Your task to perform on an android device: Search for the new nintendo switch on Walmart. Image 0: 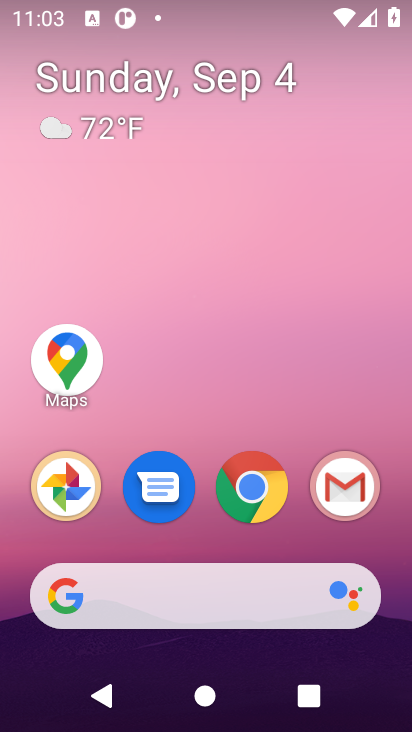
Step 0: click (200, 617)
Your task to perform on an android device: Search for the new nintendo switch on Walmart. Image 1: 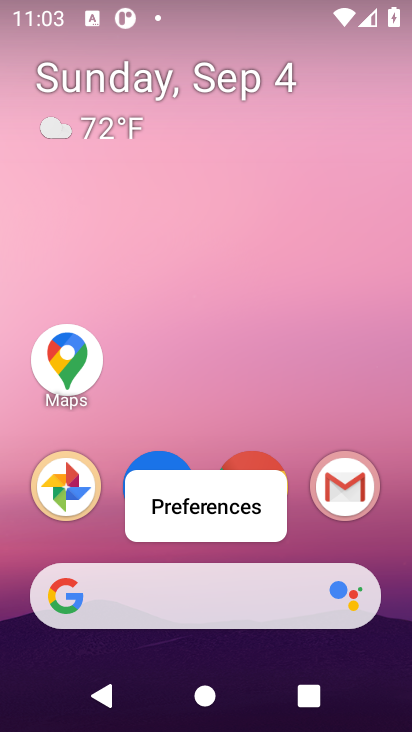
Step 1: click (190, 579)
Your task to perform on an android device: Search for the new nintendo switch on Walmart. Image 2: 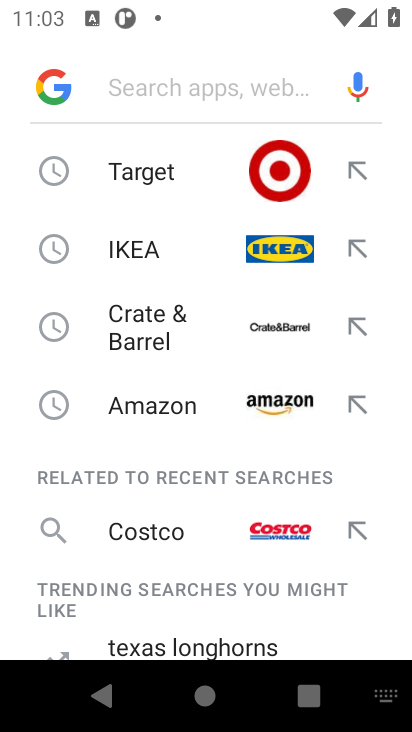
Step 2: type "walmart"
Your task to perform on an android device: Search for the new nintendo switch on Walmart. Image 3: 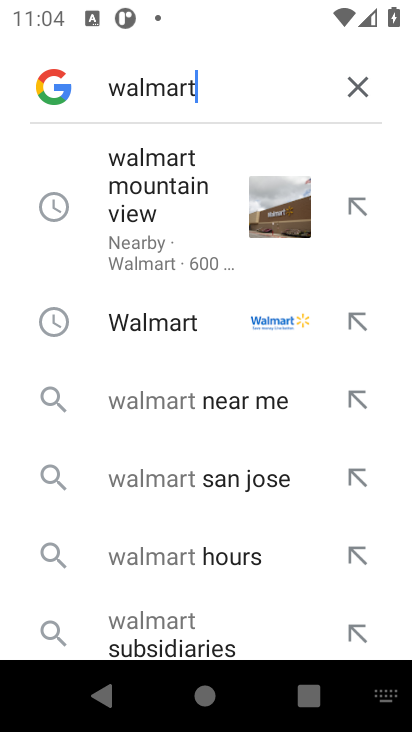
Step 3: click (168, 321)
Your task to perform on an android device: Search for the new nintendo switch on Walmart. Image 4: 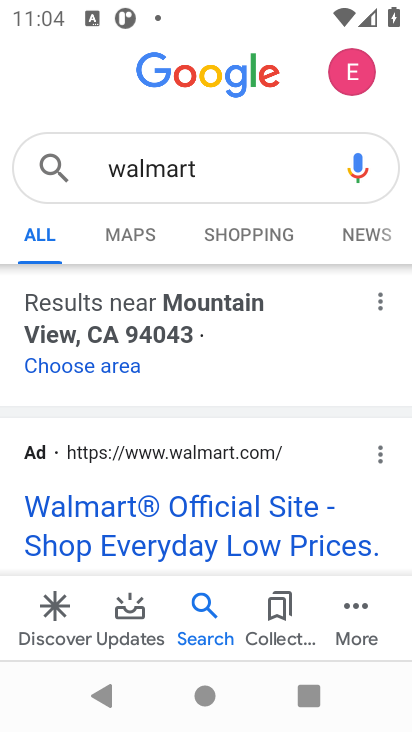
Step 4: drag from (85, 454) to (144, 146)
Your task to perform on an android device: Search for the new nintendo switch on Walmart. Image 5: 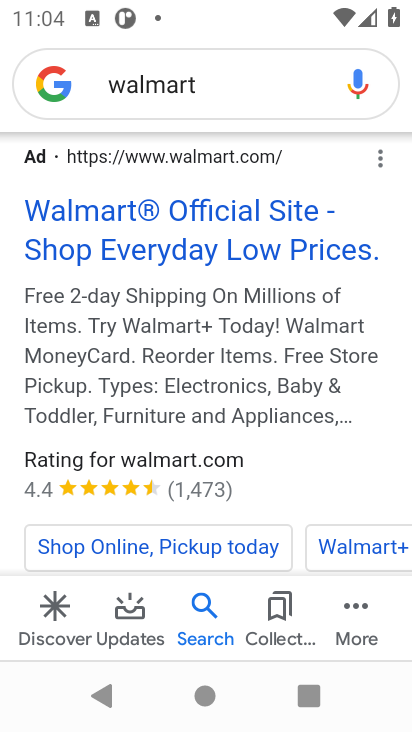
Step 5: drag from (246, 463) to (252, 404)
Your task to perform on an android device: Search for the new nintendo switch on Walmart. Image 6: 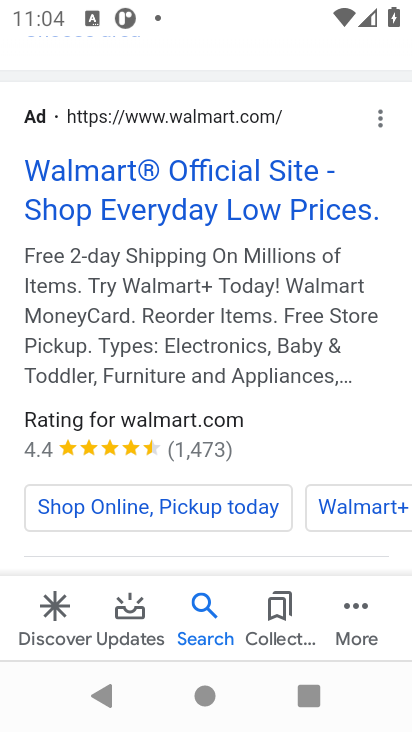
Step 6: click (210, 215)
Your task to perform on an android device: Search for the new nintendo switch on Walmart. Image 7: 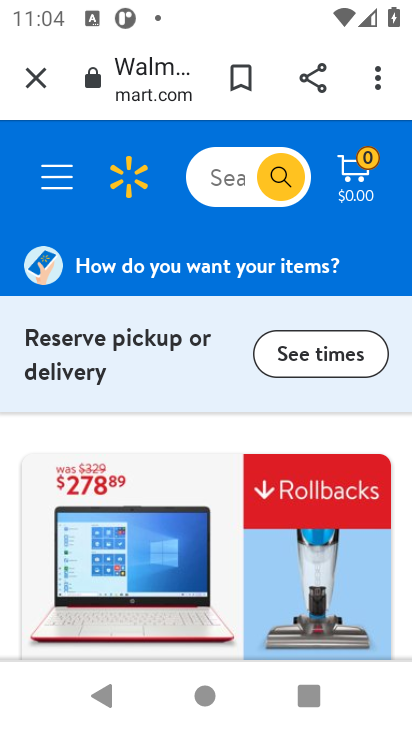
Step 7: click (269, 178)
Your task to perform on an android device: Search for the new nintendo switch on Walmart. Image 8: 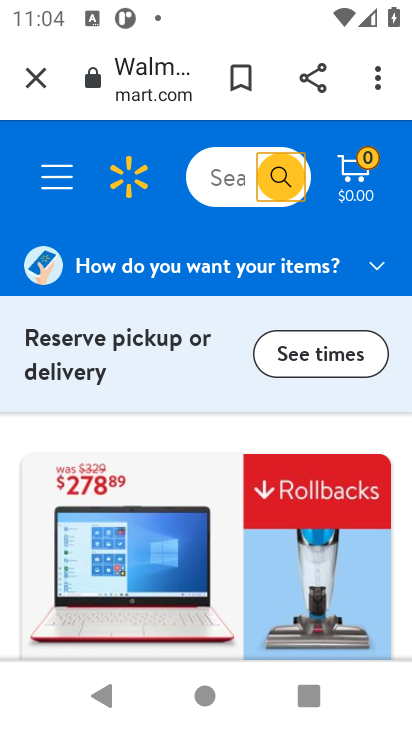
Step 8: click (269, 178)
Your task to perform on an android device: Search for the new nintendo switch on Walmart. Image 9: 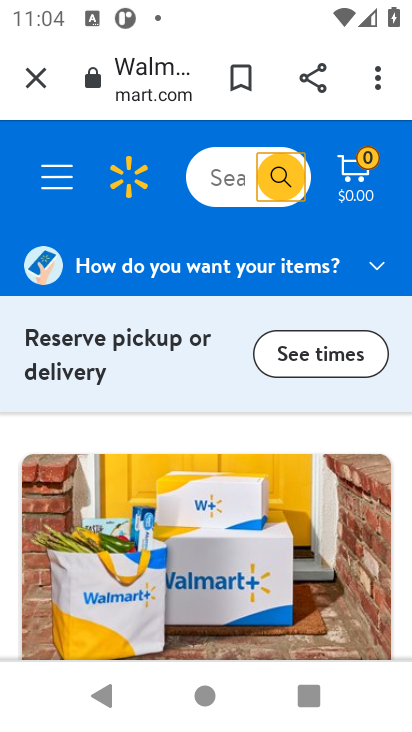
Step 9: click (218, 185)
Your task to perform on an android device: Search for the new nintendo switch on Walmart. Image 10: 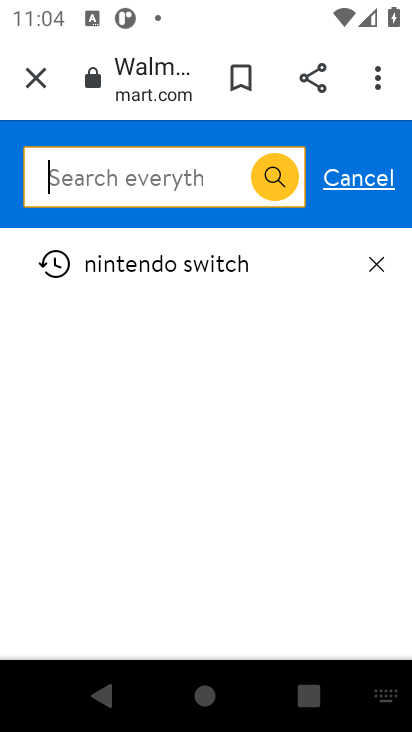
Step 10: click (222, 180)
Your task to perform on an android device: Search for the new nintendo switch on Walmart. Image 11: 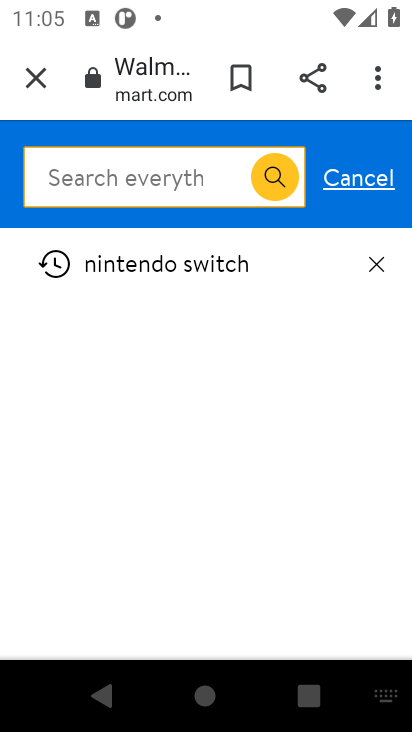
Step 11: type "nintendo switch"
Your task to perform on an android device: Search for the new nintendo switch on Walmart. Image 12: 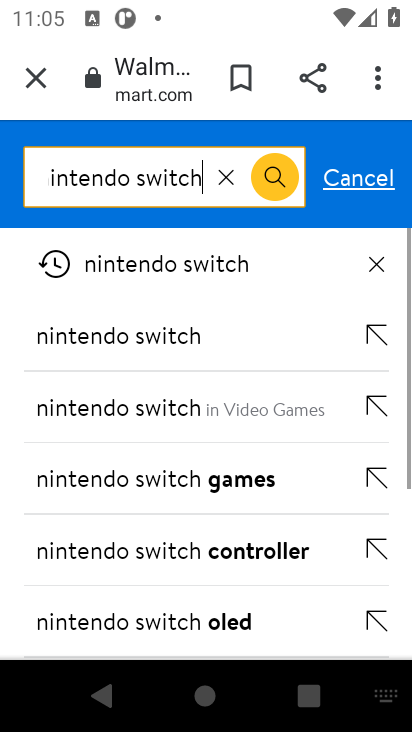
Step 12: click (286, 172)
Your task to perform on an android device: Search for the new nintendo switch on Walmart. Image 13: 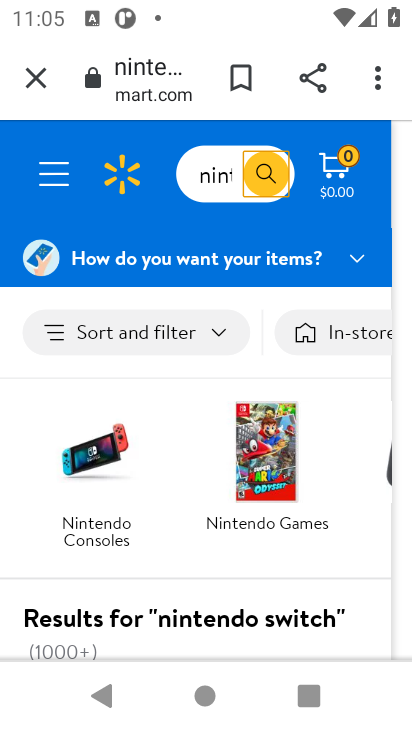
Step 13: task complete